Your task to perform on an android device: change the clock style Image 0: 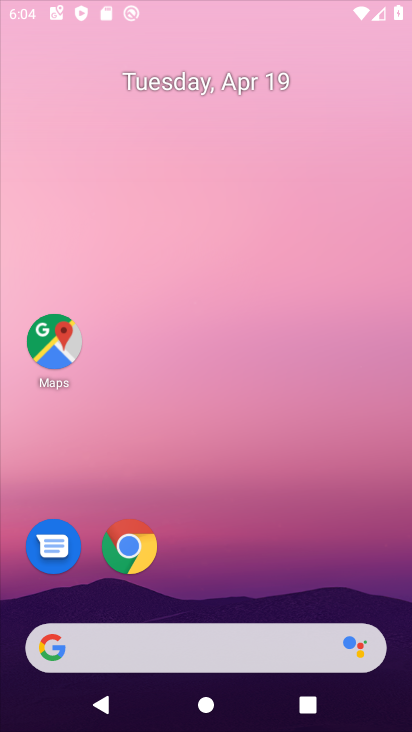
Step 0: click (364, 131)
Your task to perform on an android device: change the clock style Image 1: 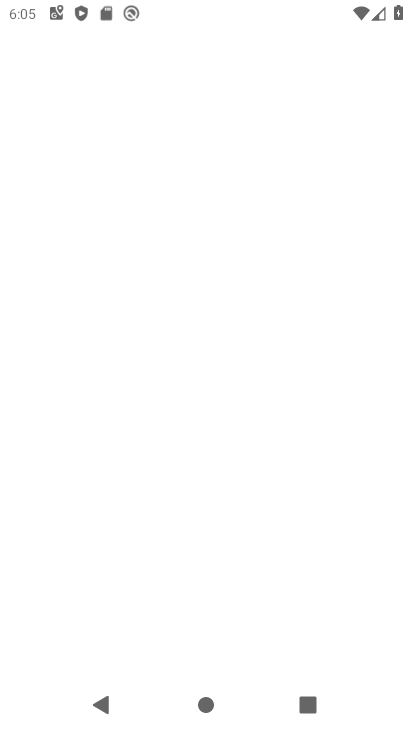
Step 1: press home button
Your task to perform on an android device: change the clock style Image 2: 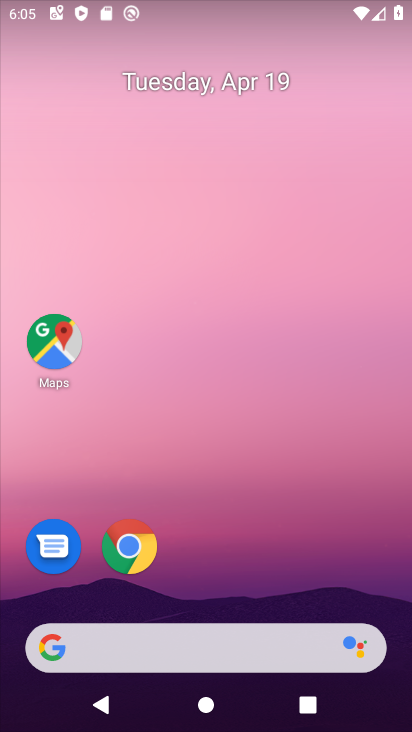
Step 2: drag from (294, 573) to (288, 143)
Your task to perform on an android device: change the clock style Image 3: 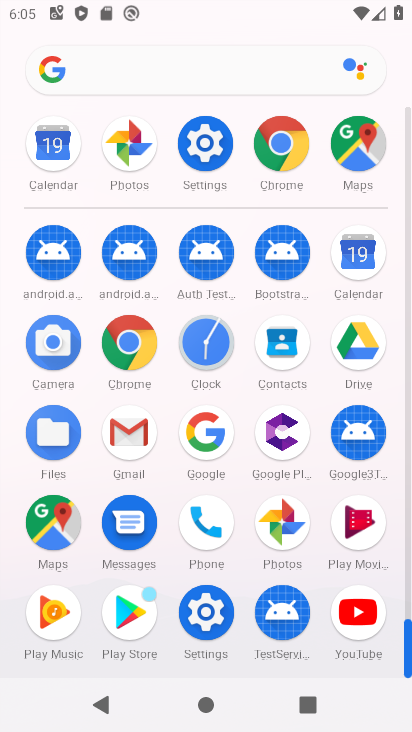
Step 3: click (207, 335)
Your task to perform on an android device: change the clock style Image 4: 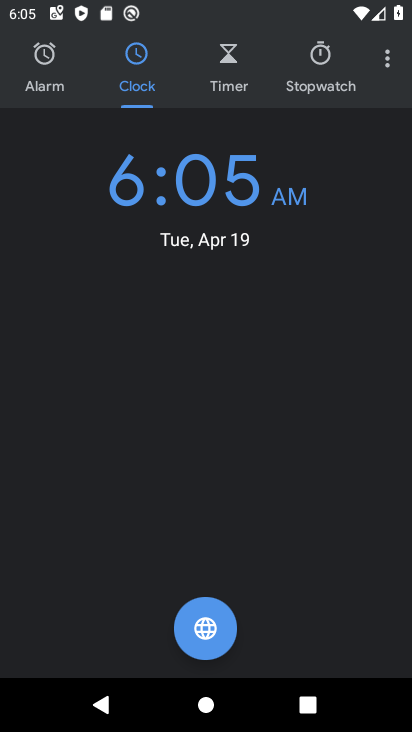
Step 4: click (392, 59)
Your task to perform on an android device: change the clock style Image 5: 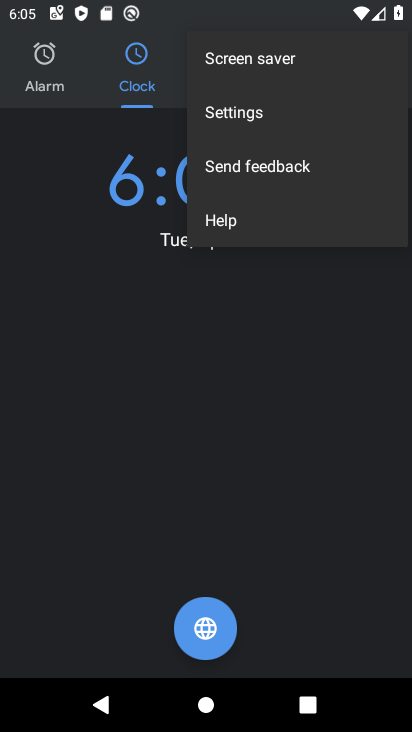
Step 5: click (268, 112)
Your task to perform on an android device: change the clock style Image 6: 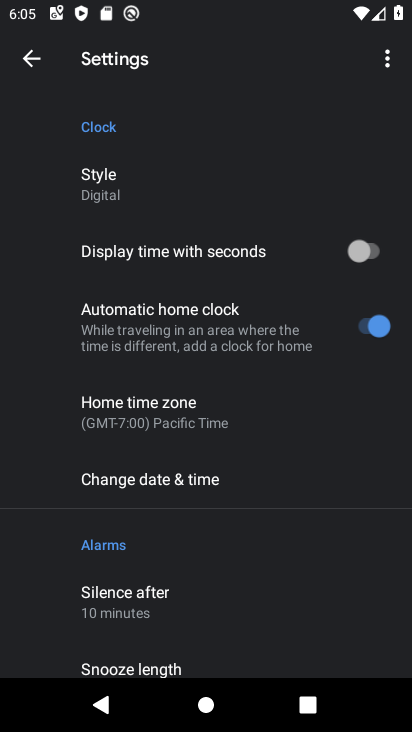
Step 6: click (115, 186)
Your task to perform on an android device: change the clock style Image 7: 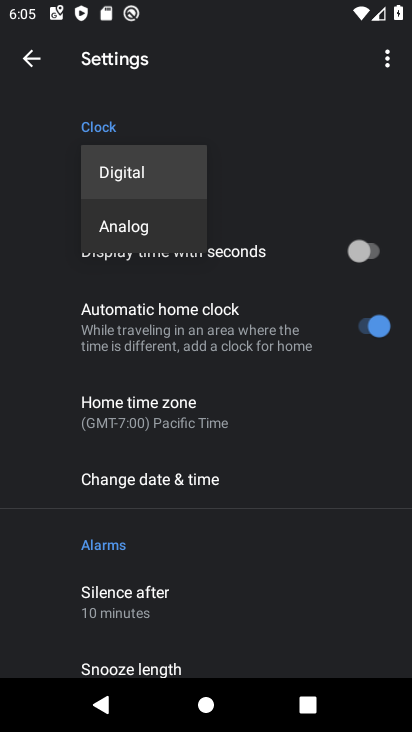
Step 7: click (117, 233)
Your task to perform on an android device: change the clock style Image 8: 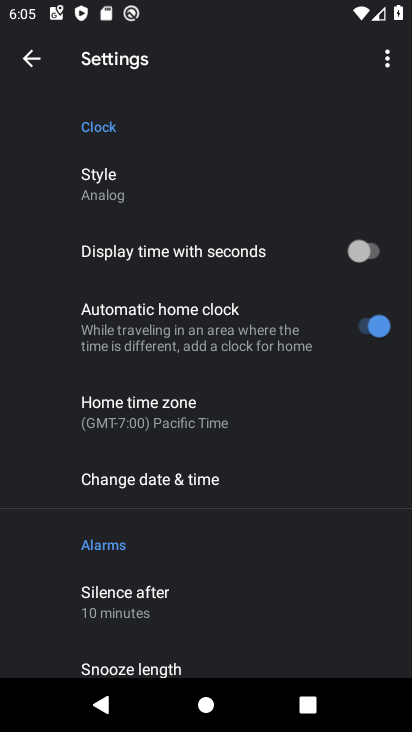
Step 8: task complete